Your task to perform on an android device: Show me recent news Image 0: 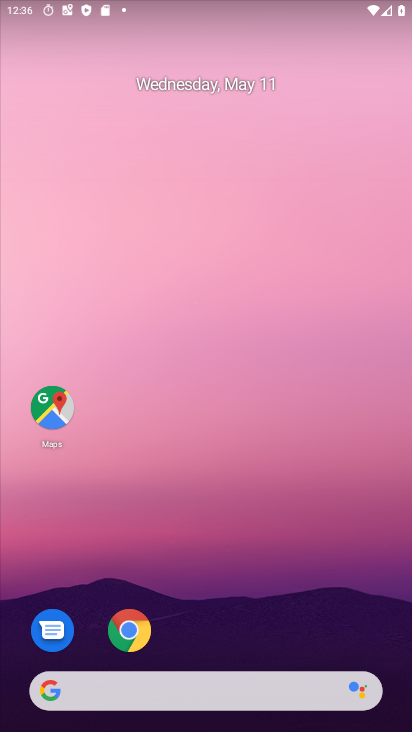
Step 0: drag from (209, 616) to (272, 184)
Your task to perform on an android device: Show me recent news Image 1: 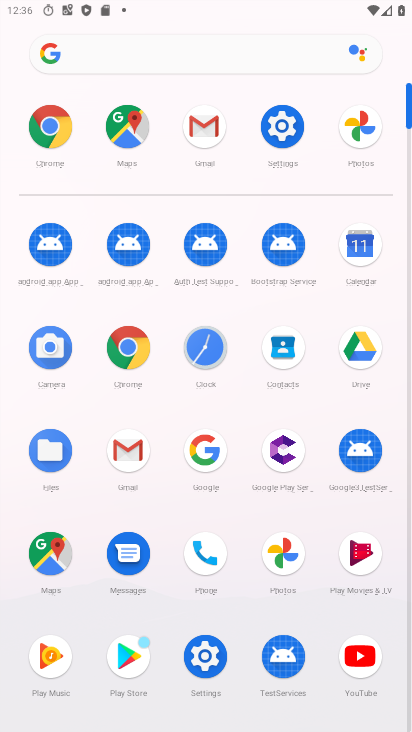
Step 1: click (59, 131)
Your task to perform on an android device: Show me recent news Image 2: 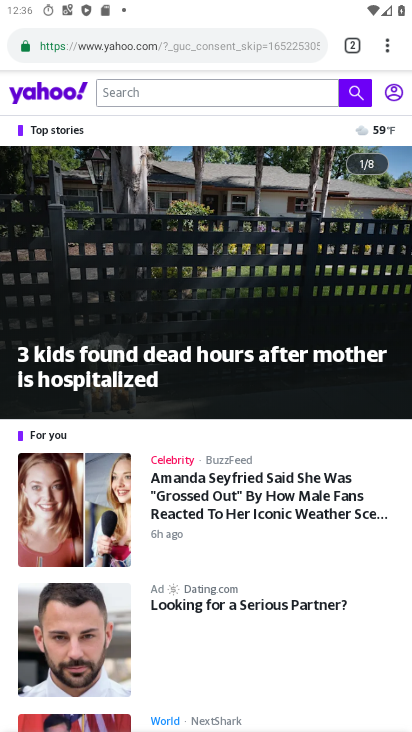
Step 2: click (250, 38)
Your task to perform on an android device: Show me recent news Image 3: 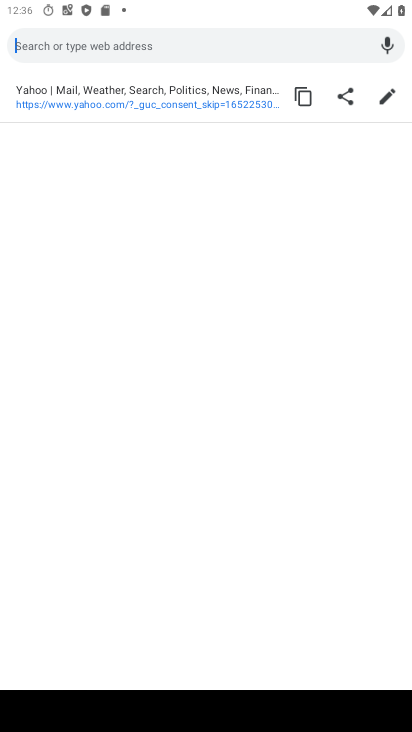
Step 3: type "news"
Your task to perform on an android device: Show me recent news Image 4: 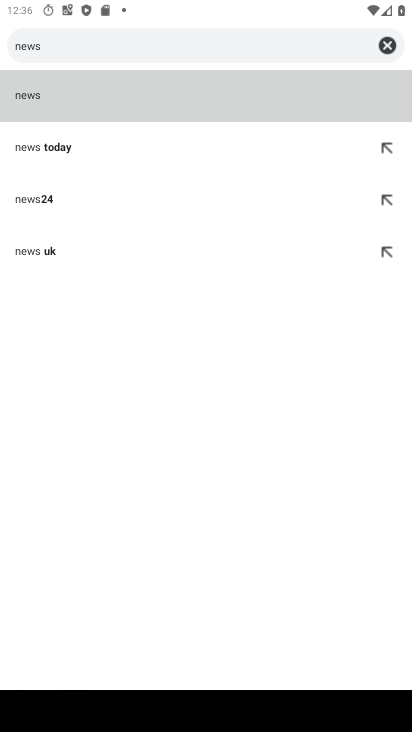
Step 4: click (44, 96)
Your task to perform on an android device: Show me recent news Image 5: 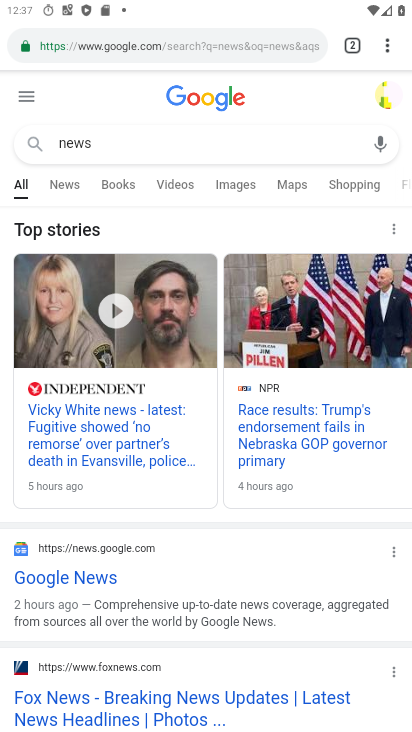
Step 5: click (55, 182)
Your task to perform on an android device: Show me recent news Image 6: 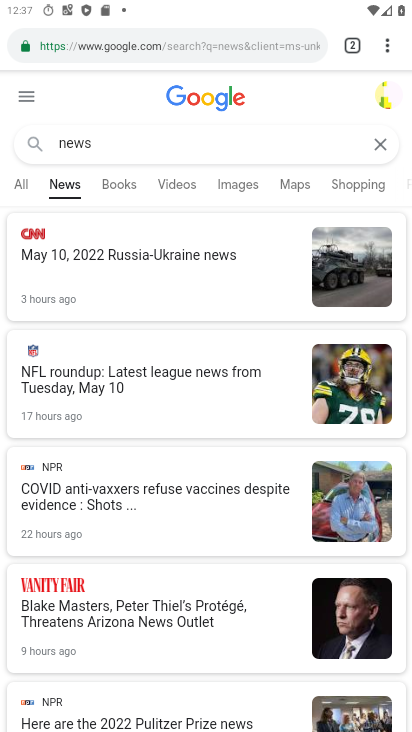
Step 6: task complete